Your task to perform on an android device: turn on translation in the chrome app Image 0: 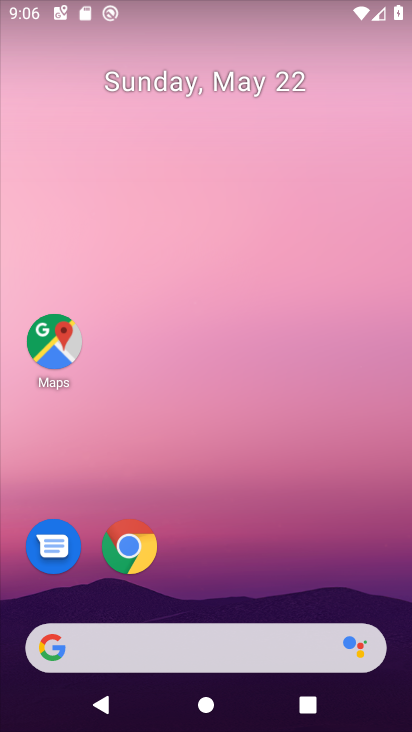
Step 0: drag from (384, 600) to (380, 147)
Your task to perform on an android device: turn on translation in the chrome app Image 1: 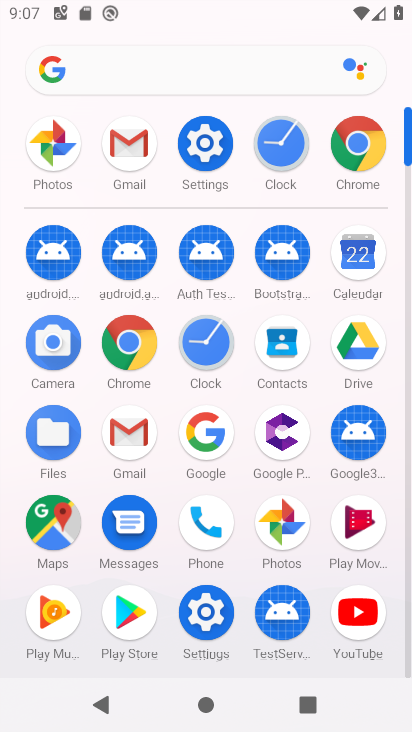
Step 1: click (135, 353)
Your task to perform on an android device: turn on translation in the chrome app Image 2: 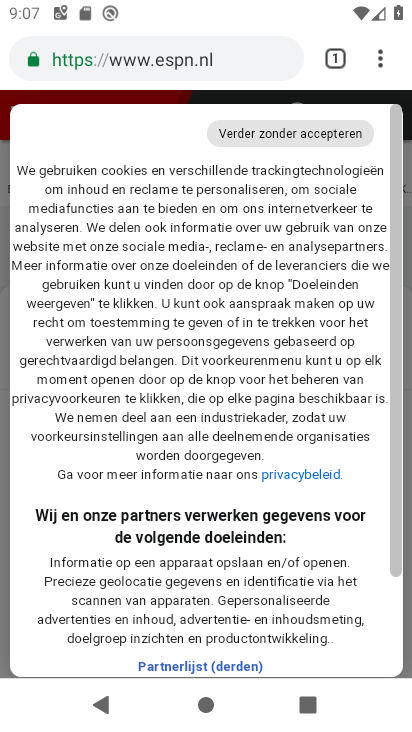
Step 2: click (382, 62)
Your task to perform on an android device: turn on translation in the chrome app Image 3: 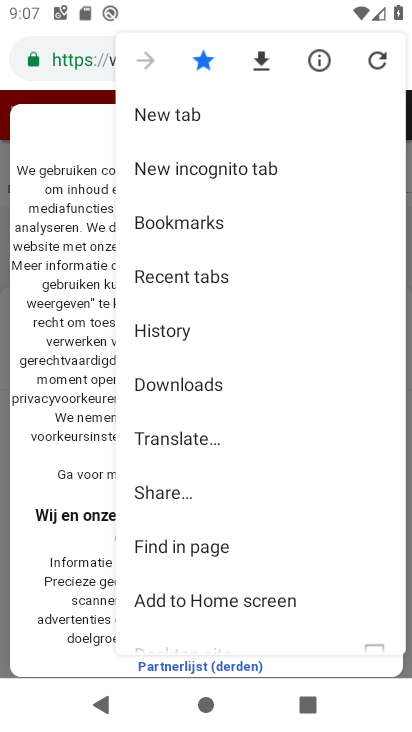
Step 3: drag from (323, 536) to (315, 365)
Your task to perform on an android device: turn on translation in the chrome app Image 4: 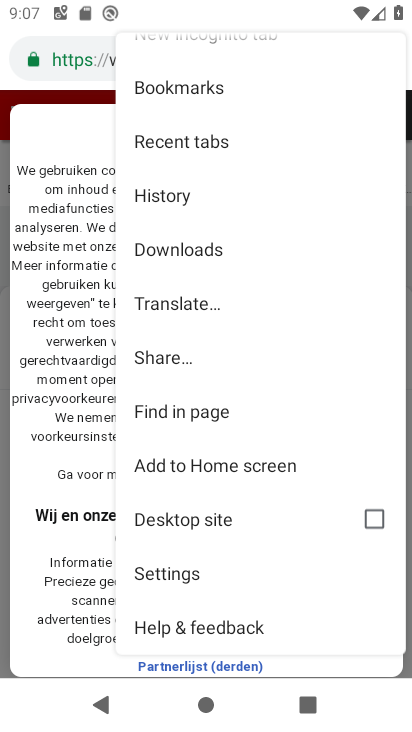
Step 4: drag from (306, 571) to (307, 411)
Your task to perform on an android device: turn on translation in the chrome app Image 5: 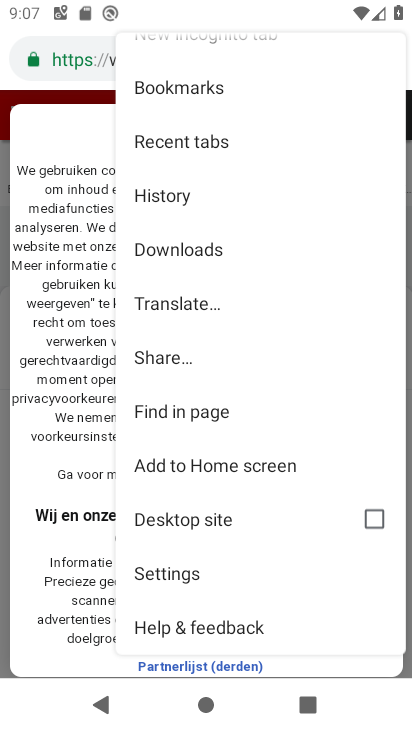
Step 5: click (191, 575)
Your task to perform on an android device: turn on translation in the chrome app Image 6: 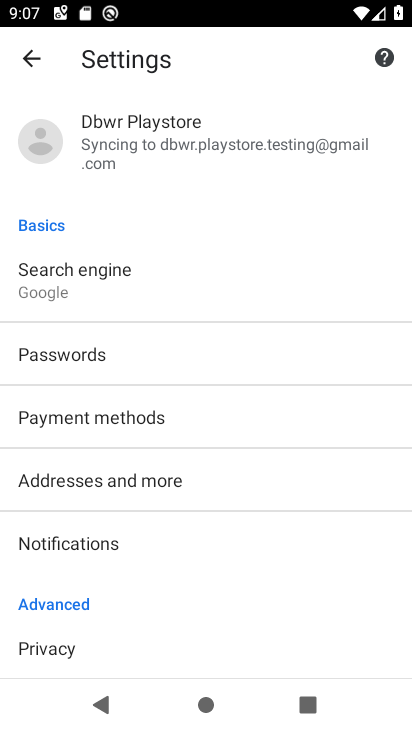
Step 6: drag from (284, 581) to (292, 496)
Your task to perform on an android device: turn on translation in the chrome app Image 7: 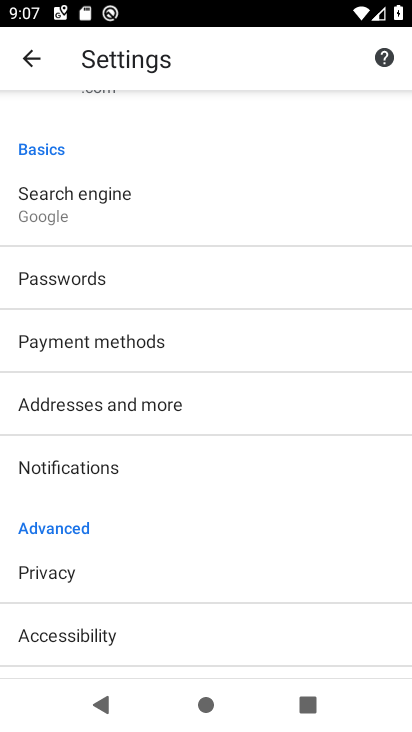
Step 7: drag from (300, 631) to (309, 517)
Your task to perform on an android device: turn on translation in the chrome app Image 8: 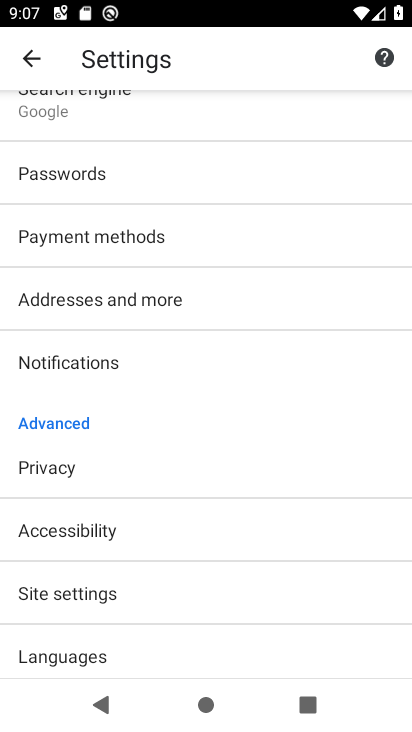
Step 8: drag from (302, 627) to (298, 514)
Your task to perform on an android device: turn on translation in the chrome app Image 9: 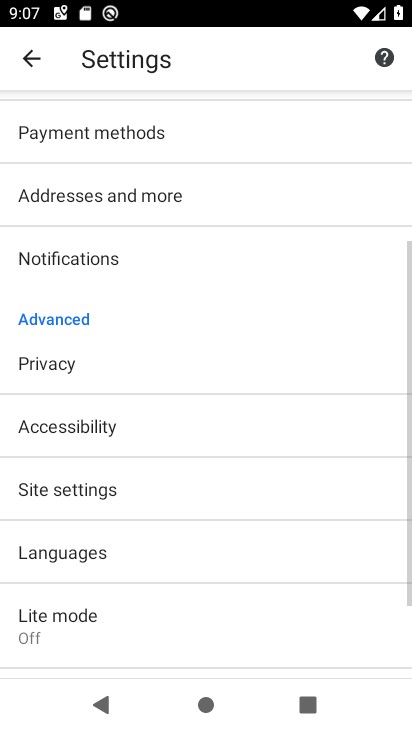
Step 9: drag from (296, 593) to (293, 503)
Your task to perform on an android device: turn on translation in the chrome app Image 10: 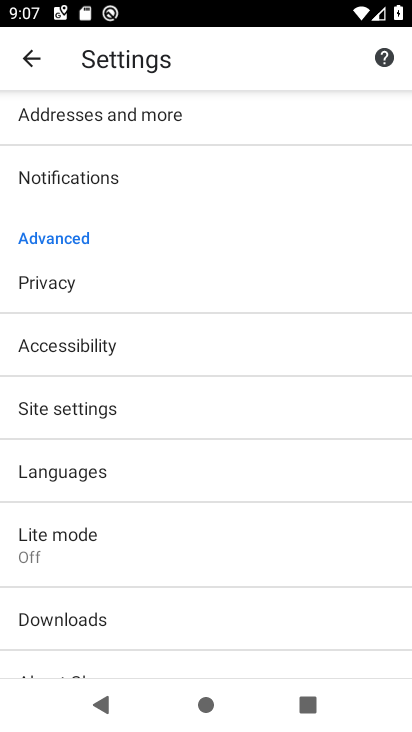
Step 10: drag from (295, 632) to (296, 518)
Your task to perform on an android device: turn on translation in the chrome app Image 11: 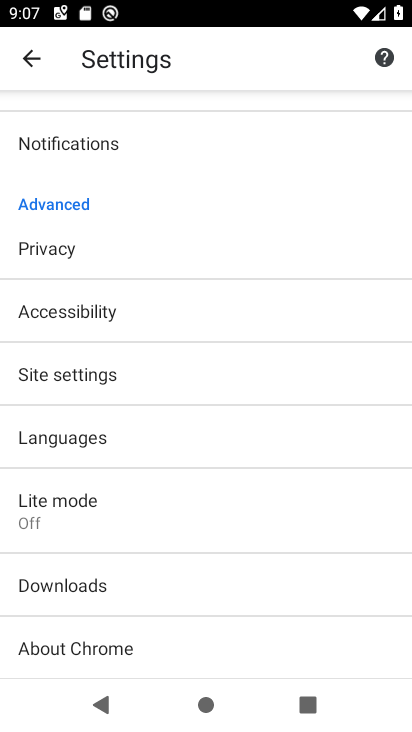
Step 11: drag from (283, 639) to (291, 513)
Your task to perform on an android device: turn on translation in the chrome app Image 12: 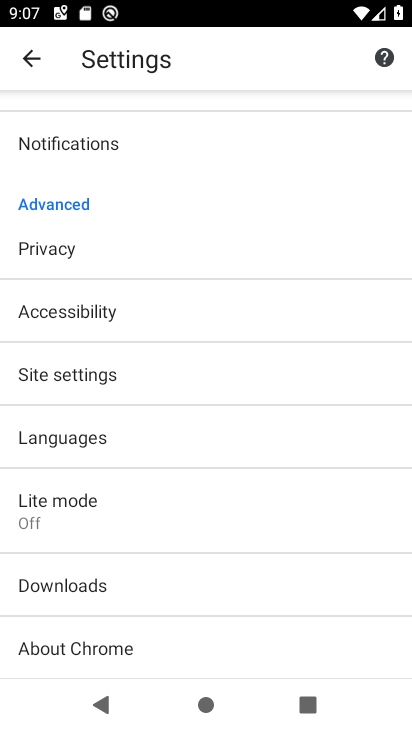
Step 12: drag from (301, 374) to (305, 470)
Your task to perform on an android device: turn on translation in the chrome app Image 13: 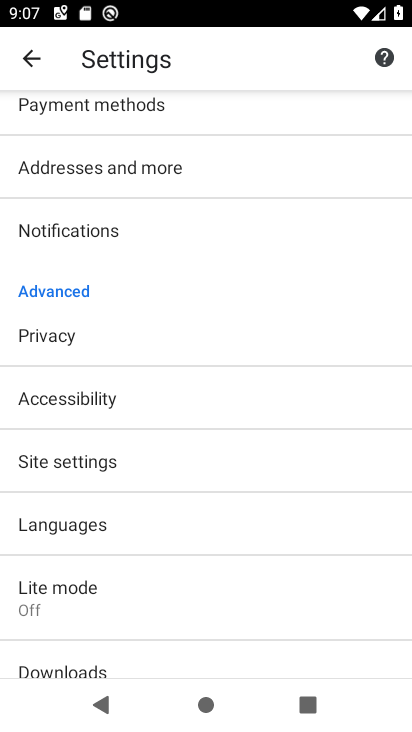
Step 13: click (244, 528)
Your task to perform on an android device: turn on translation in the chrome app Image 14: 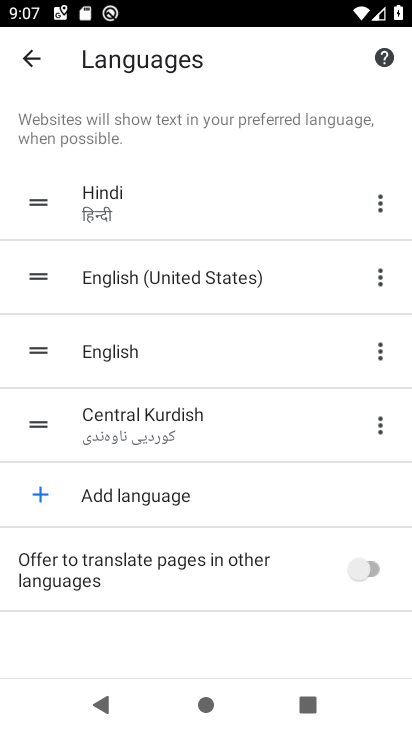
Step 14: click (354, 571)
Your task to perform on an android device: turn on translation in the chrome app Image 15: 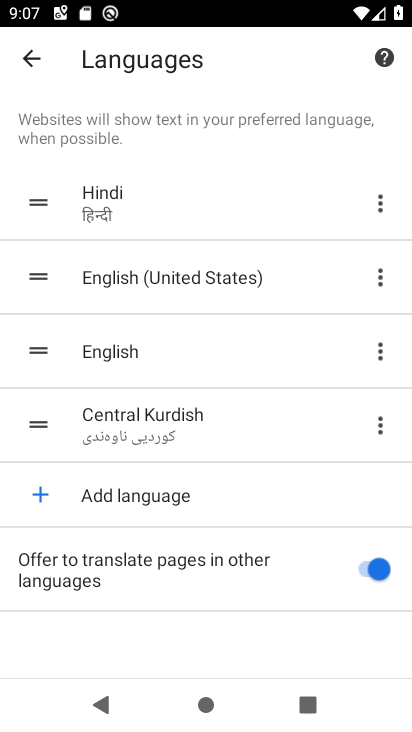
Step 15: task complete